Your task to perform on an android device: turn on the 24-hour format for clock Image 0: 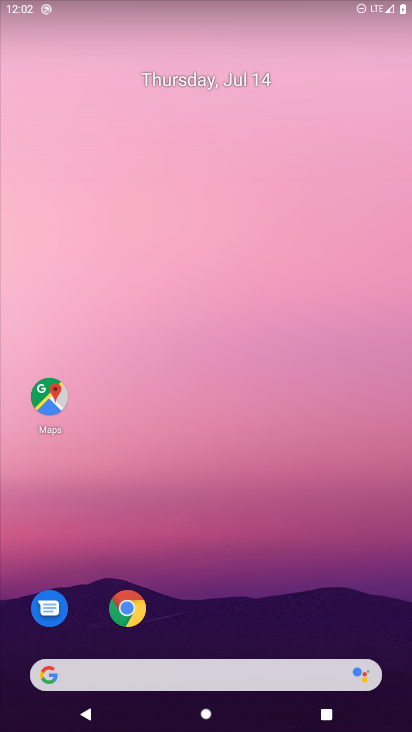
Step 0: drag from (289, 622) to (288, 253)
Your task to perform on an android device: turn on the 24-hour format for clock Image 1: 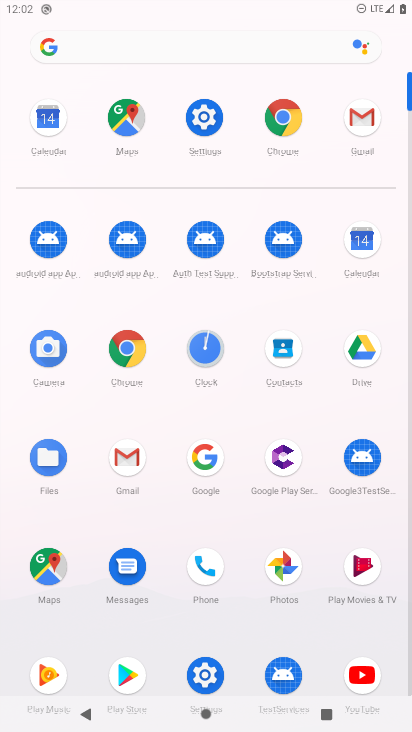
Step 1: click (229, 347)
Your task to perform on an android device: turn on the 24-hour format for clock Image 2: 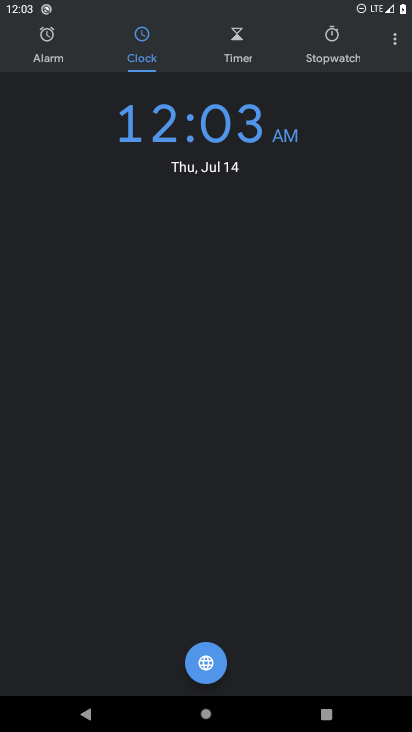
Step 2: drag from (394, 46) to (320, 70)
Your task to perform on an android device: turn on the 24-hour format for clock Image 3: 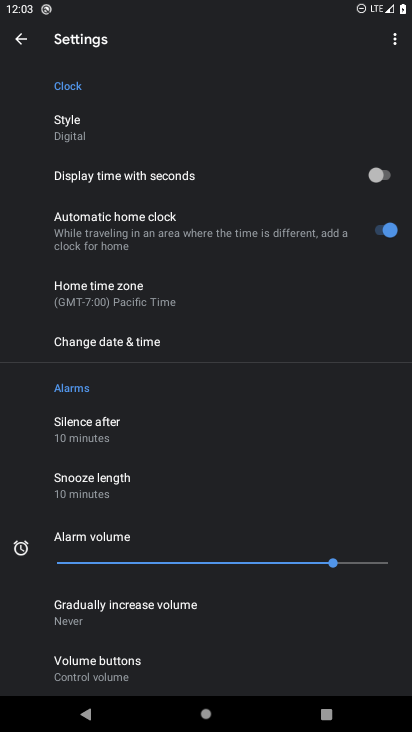
Step 3: click (141, 354)
Your task to perform on an android device: turn on the 24-hour format for clock Image 4: 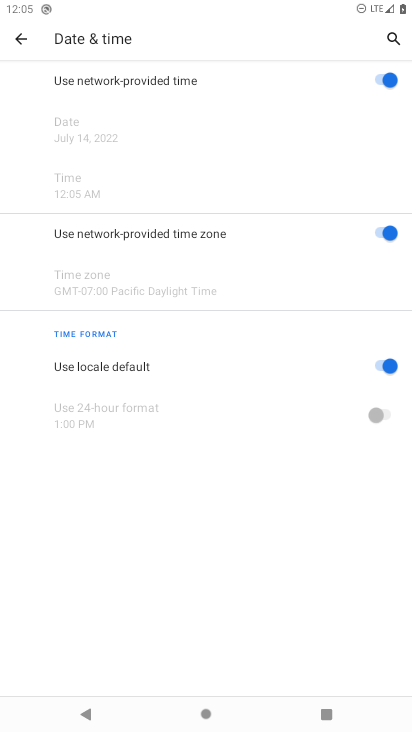
Step 4: click (221, 366)
Your task to perform on an android device: turn on the 24-hour format for clock Image 5: 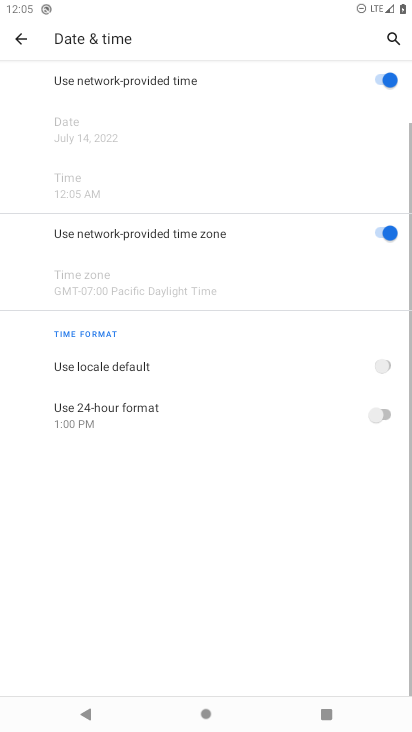
Step 5: click (215, 430)
Your task to perform on an android device: turn on the 24-hour format for clock Image 6: 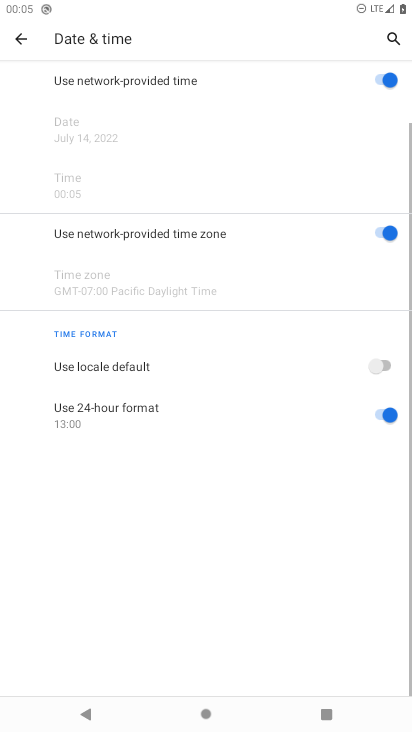
Step 6: task complete